Your task to perform on an android device: What's the weather going to be tomorrow? Image 0: 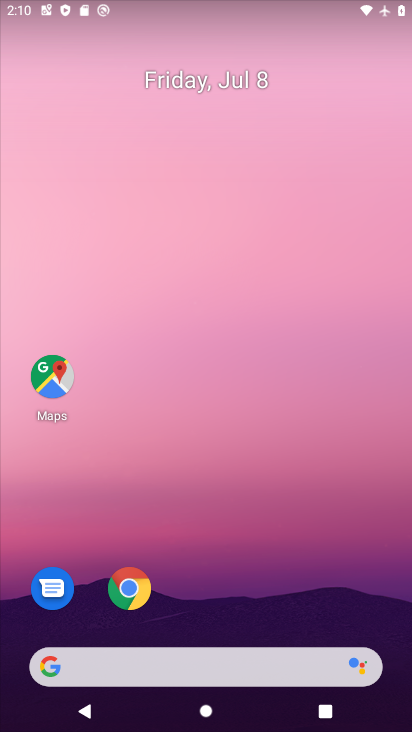
Step 0: press home button
Your task to perform on an android device: What's the weather going to be tomorrow? Image 1: 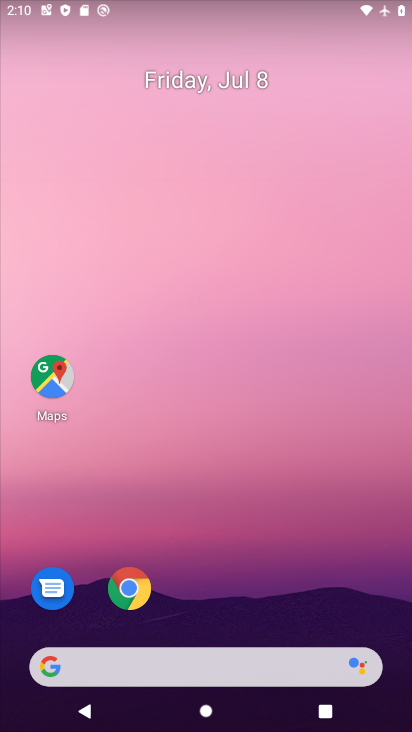
Step 1: press home button
Your task to perform on an android device: What's the weather going to be tomorrow? Image 2: 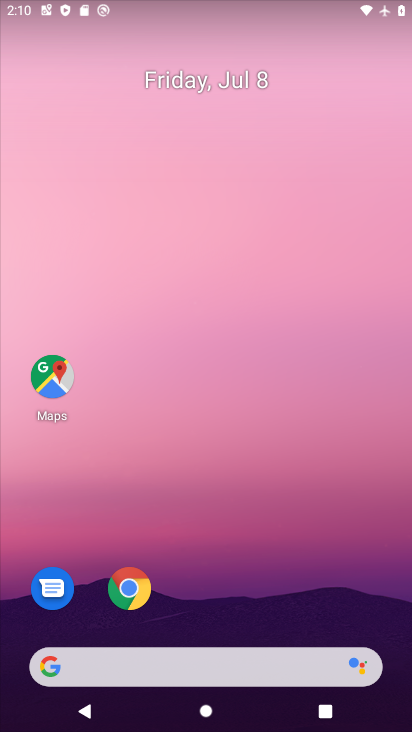
Step 2: click (40, 667)
Your task to perform on an android device: What's the weather going to be tomorrow? Image 3: 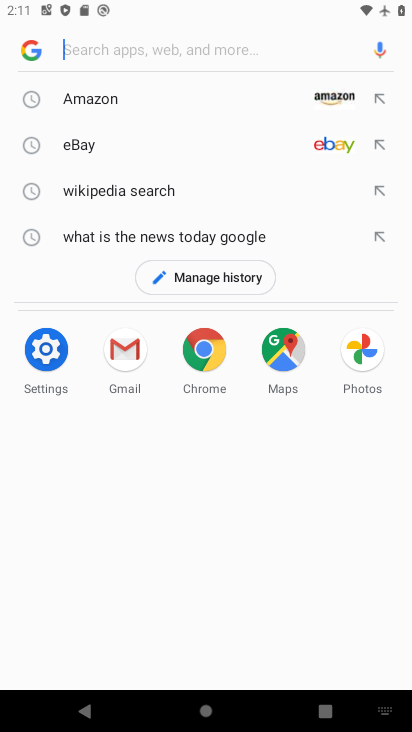
Step 3: type "weather tomorrow"
Your task to perform on an android device: What's the weather going to be tomorrow? Image 4: 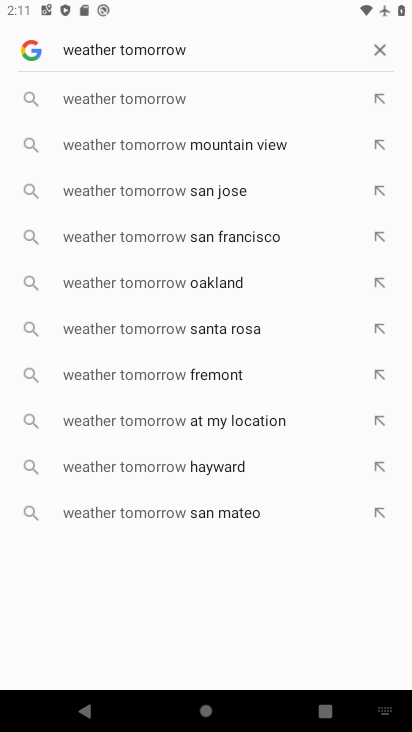
Step 4: click (125, 102)
Your task to perform on an android device: What's the weather going to be tomorrow? Image 5: 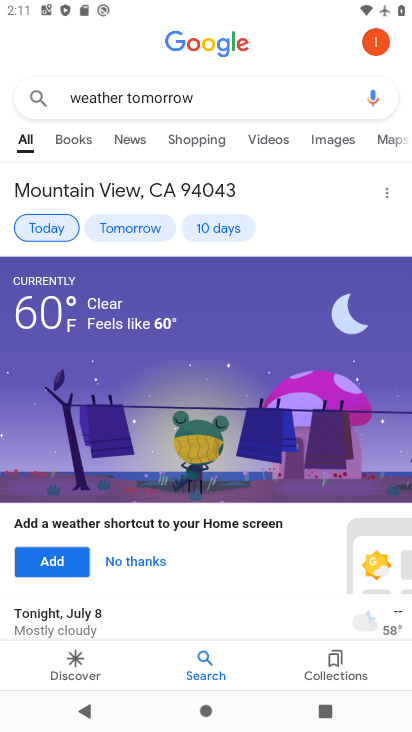
Step 5: task complete